Your task to perform on an android device: turn on priority inbox in the gmail app Image 0: 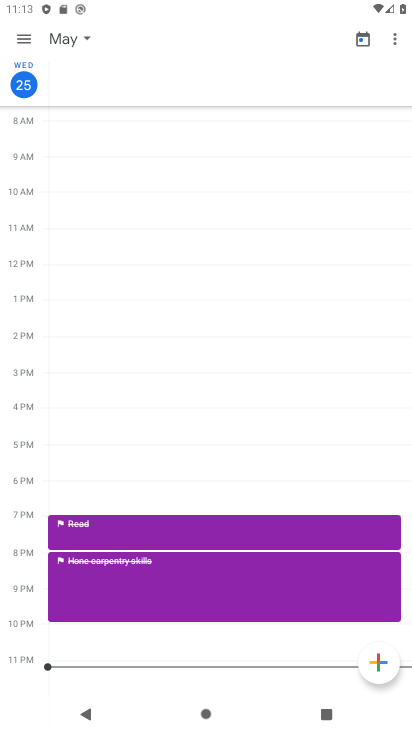
Step 0: press home button
Your task to perform on an android device: turn on priority inbox in the gmail app Image 1: 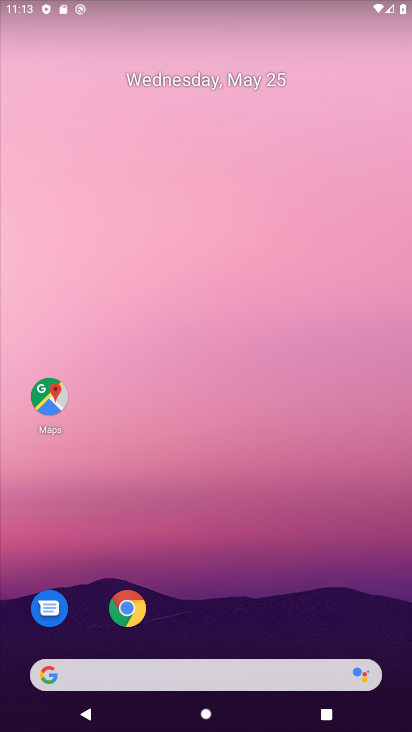
Step 1: drag from (232, 606) to (201, 4)
Your task to perform on an android device: turn on priority inbox in the gmail app Image 2: 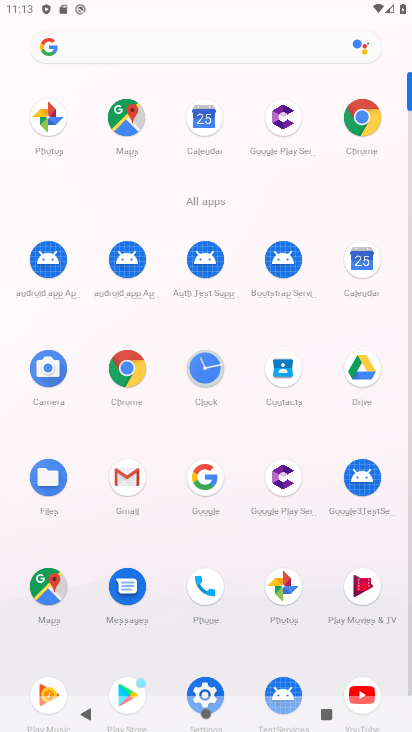
Step 2: click (129, 475)
Your task to perform on an android device: turn on priority inbox in the gmail app Image 3: 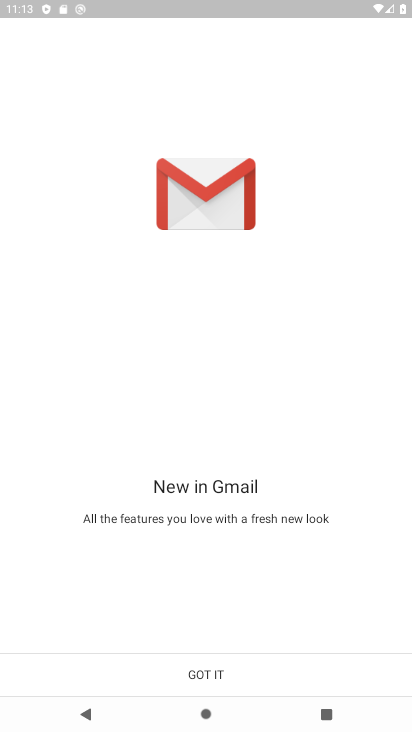
Step 3: click (113, 691)
Your task to perform on an android device: turn on priority inbox in the gmail app Image 4: 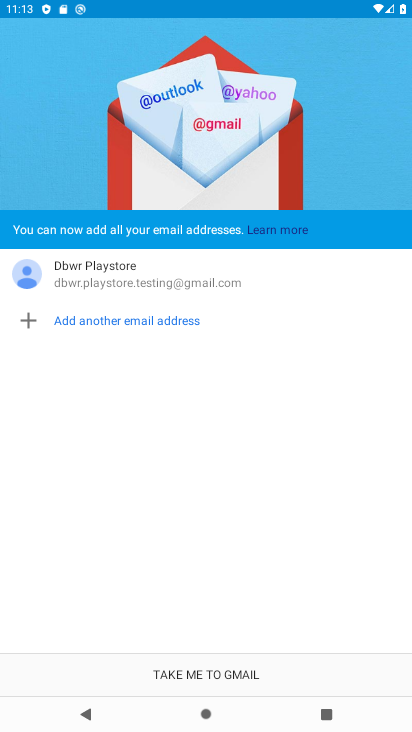
Step 4: click (168, 678)
Your task to perform on an android device: turn on priority inbox in the gmail app Image 5: 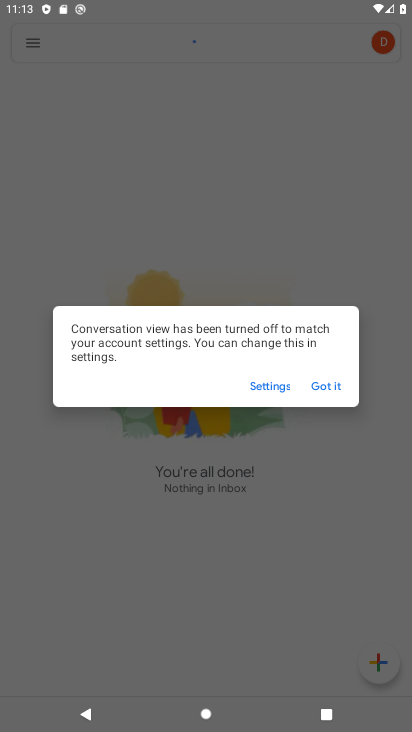
Step 5: click (330, 390)
Your task to perform on an android device: turn on priority inbox in the gmail app Image 6: 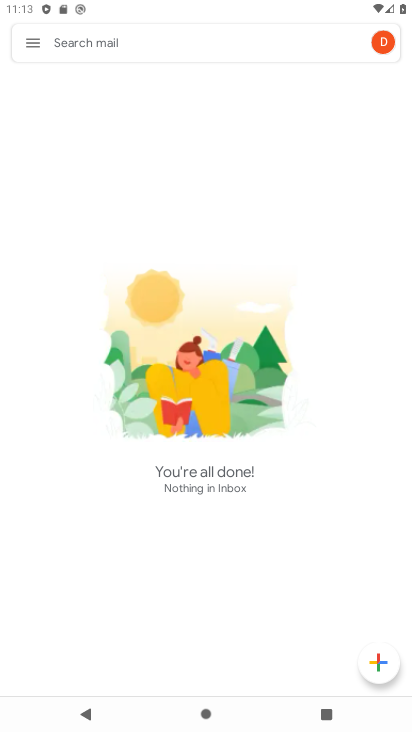
Step 6: click (33, 39)
Your task to perform on an android device: turn on priority inbox in the gmail app Image 7: 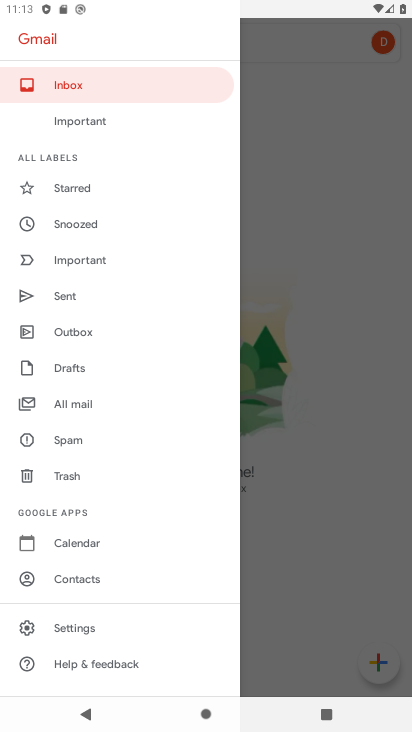
Step 7: click (39, 615)
Your task to perform on an android device: turn on priority inbox in the gmail app Image 8: 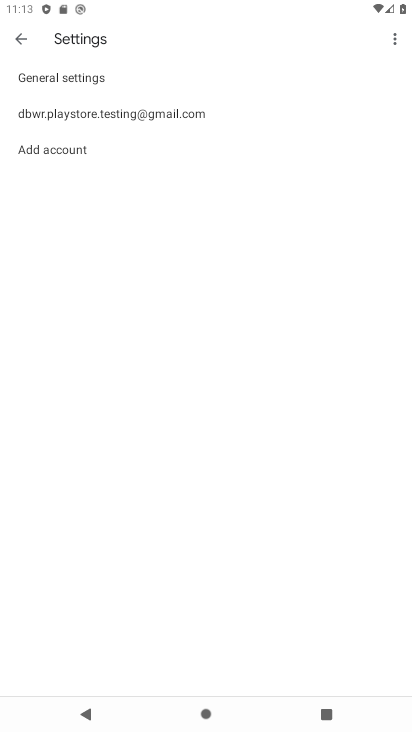
Step 8: click (215, 113)
Your task to perform on an android device: turn on priority inbox in the gmail app Image 9: 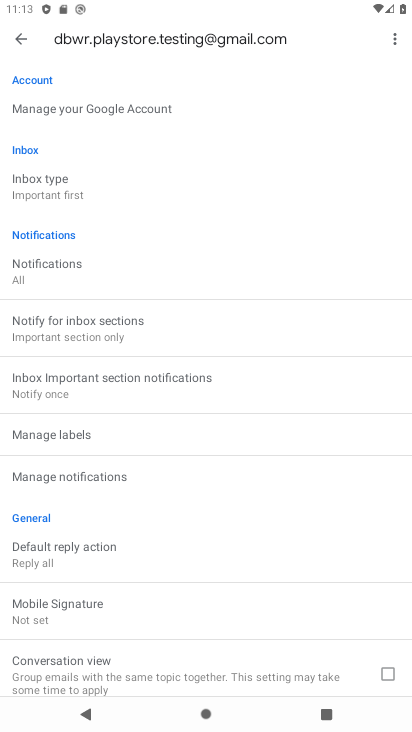
Step 9: click (72, 183)
Your task to perform on an android device: turn on priority inbox in the gmail app Image 10: 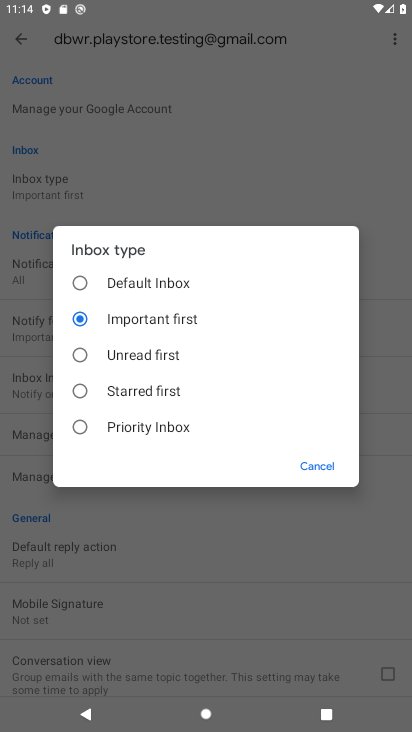
Step 10: click (79, 414)
Your task to perform on an android device: turn on priority inbox in the gmail app Image 11: 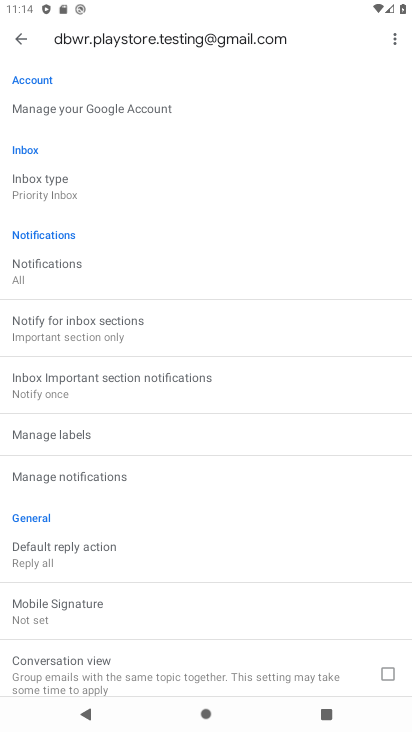
Step 11: task complete